Your task to perform on an android device: turn off airplane mode Image 0: 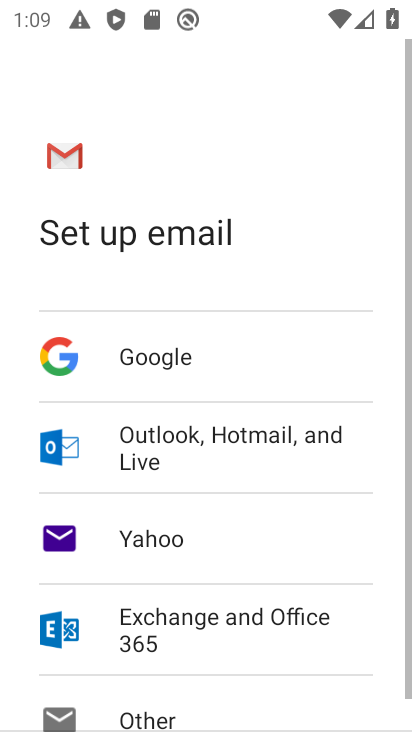
Step 0: press back button
Your task to perform on an android device: turn off airplane mode Image 1: 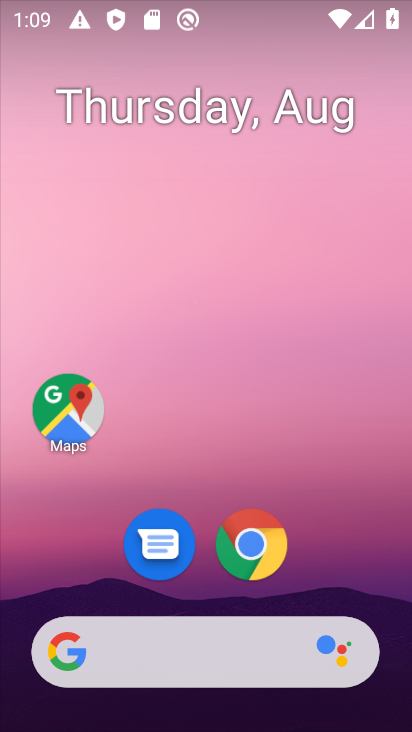
Step 1: drag from (183, 615) to (347, 15)
Your task to perform on an android device: turn off airplane mode Image 2: 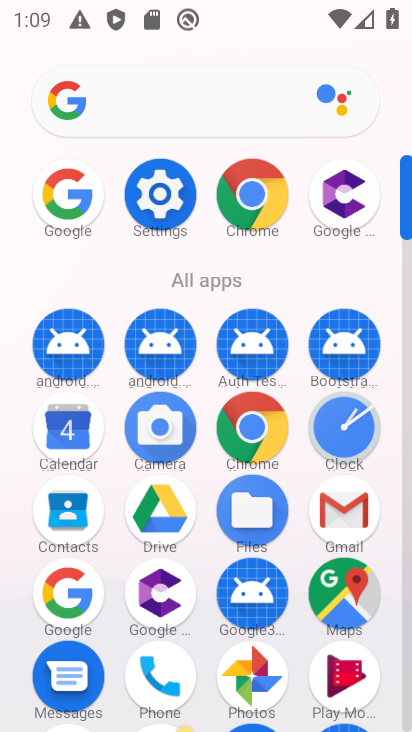
Step 2: click (176, 218)
Your task to perform on an android device: turn off airplane mode Image 3: 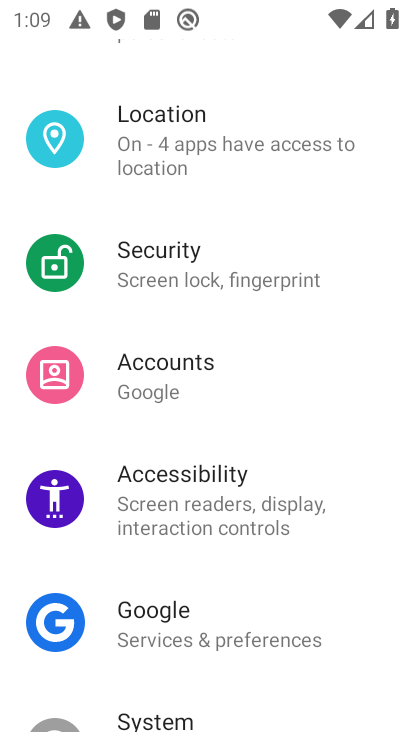
Step 3: drag from (145, 166) to (149, 671)
Your task to perform on an android device: turn off airplane mode Image 4: 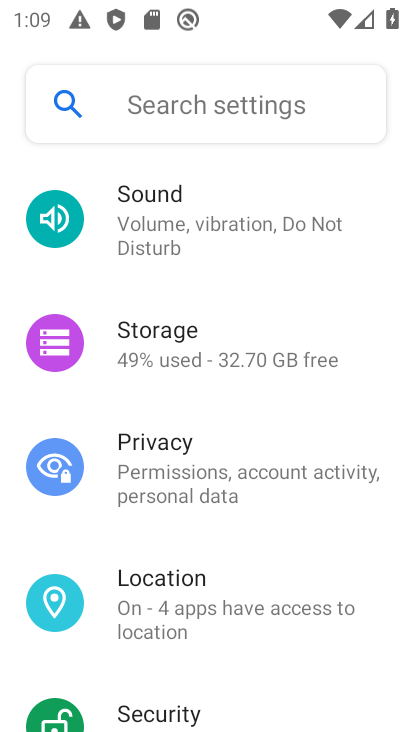
Step 4: drag from (198, 213) to (185, 727)
Your task to perform on an android device: turn off airplane mode Image 5: 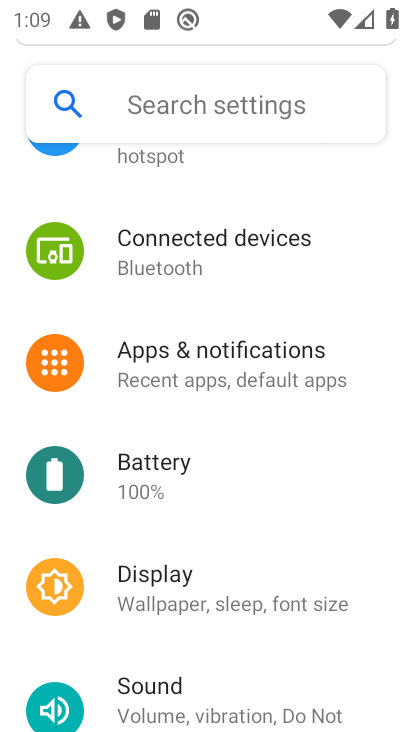
Step 5: drag from (194, 246) to (207, 730)
Your task to perform on an android device: turn off airplane mode Image 6: 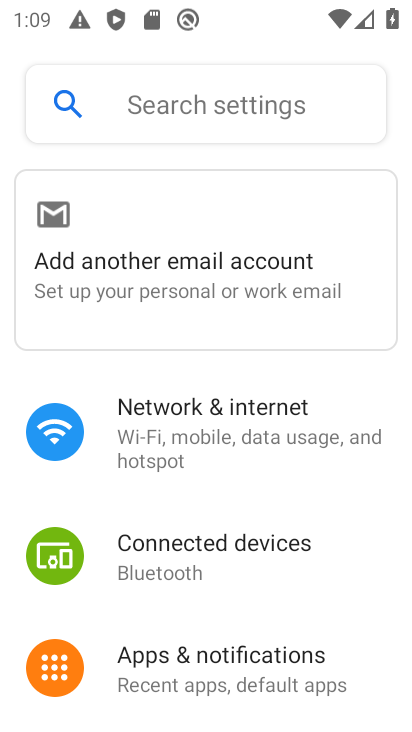
Step 6: click (196, 420)
Your task to perform on an android device: turn off airplane mode Image 7: 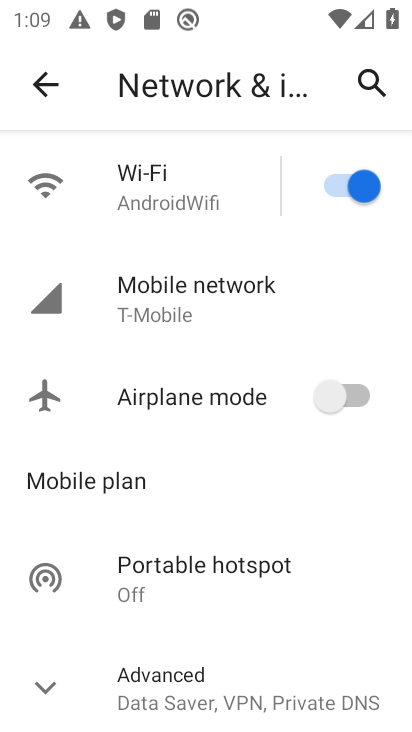
Step 7: task complete